Your task to perform on an android device: Go to eBay Image 0: 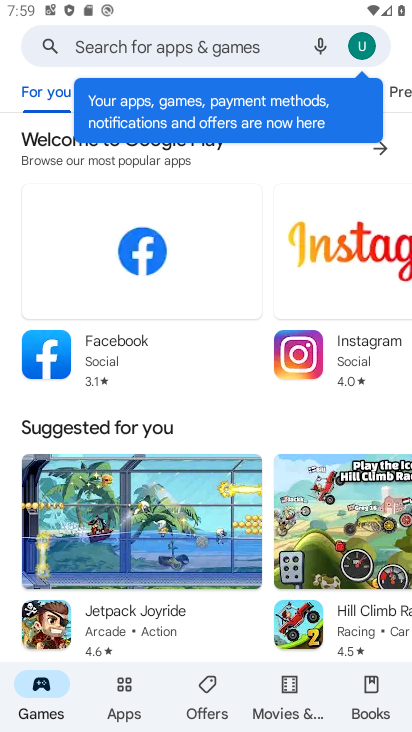
Step 0: press back button
Your task to perform on an android device: Go to eBay Image 1: 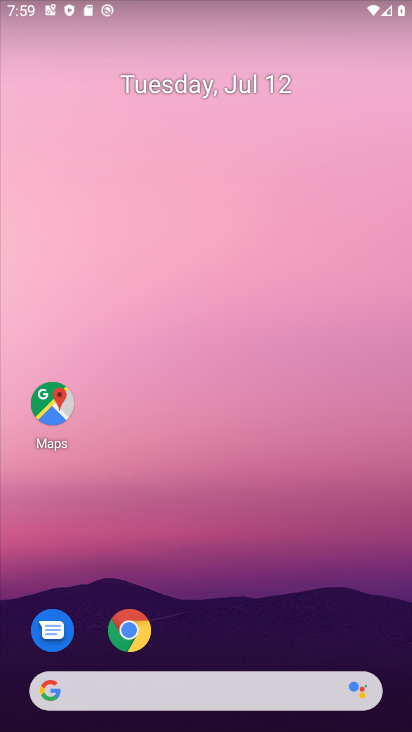
Step 1: click (131, 618)
Your task to perform on an android device: Go to eBay Image 2: 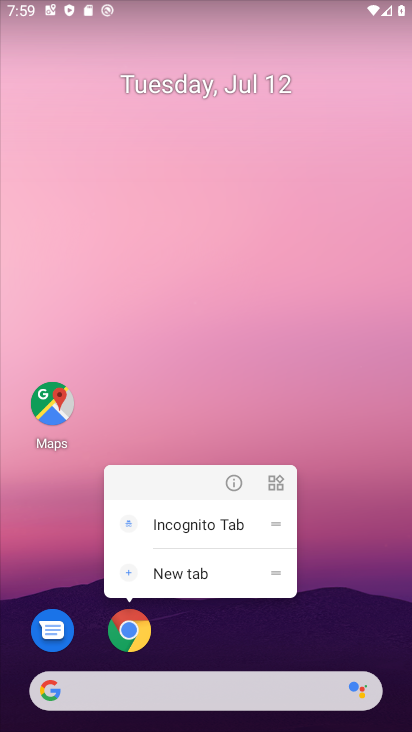
Step 2: click (140, 634)
Your task to perform on an android device: Go to eBay Image 3: 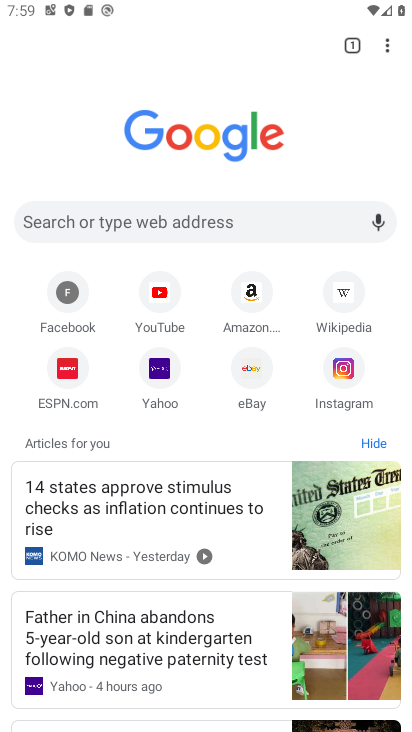
Step 3: click (261, 375)
Your task to perform on an android device: Go to eBay Image 4: 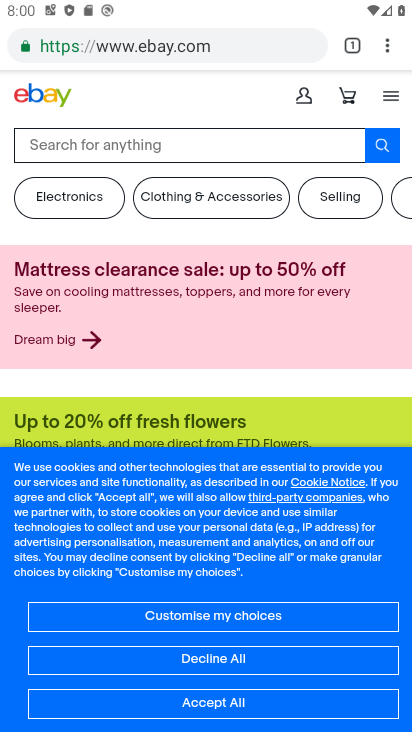
Step 4: task complete